Your task to perform on an android device: turn on sleep mode Image 0: 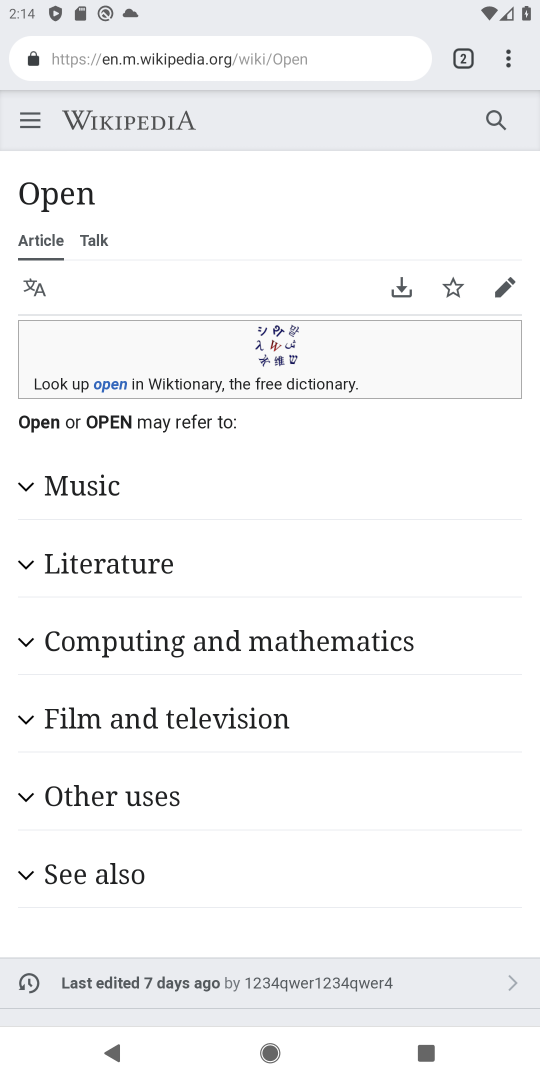
Step 0: press home button
Your task to perform on an android device: turn on sleep mode Image 1: 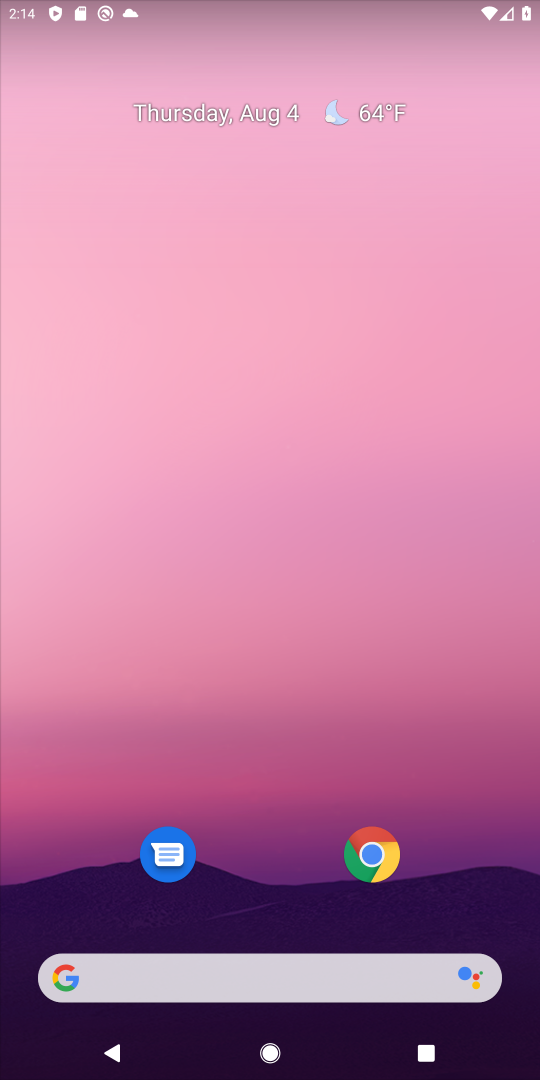
Step 1: task complete